Your task to perform on an android device: Go to display settings Image 0: 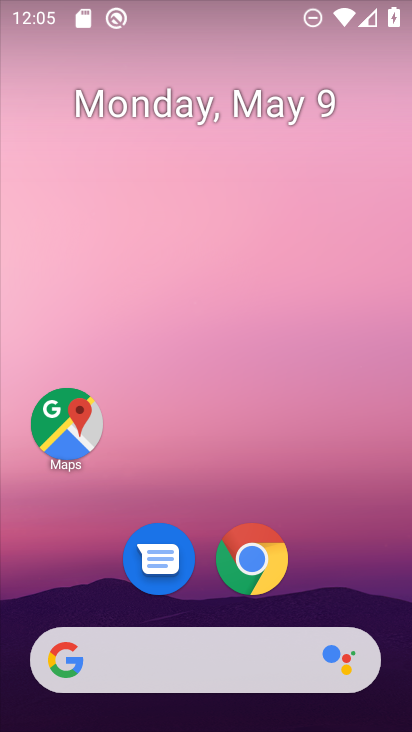
Step 0: drag from (310, 556) to (231, 0)
Your task to perform on an android device: Go to display settings Image 1: 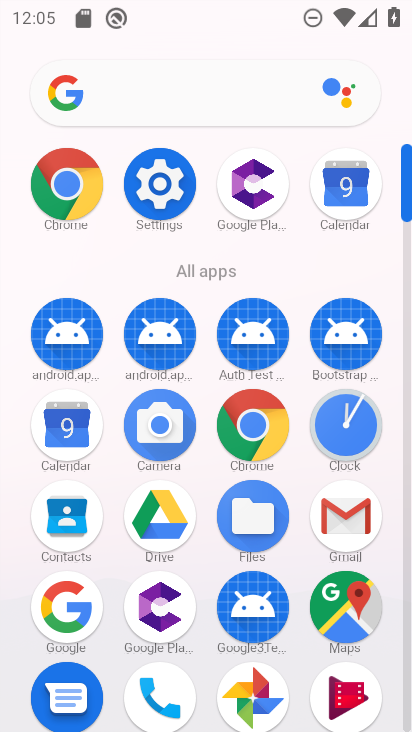
Step 1: click (140, 201)
Your task to perform on an android device: Go to display settings Image 2: 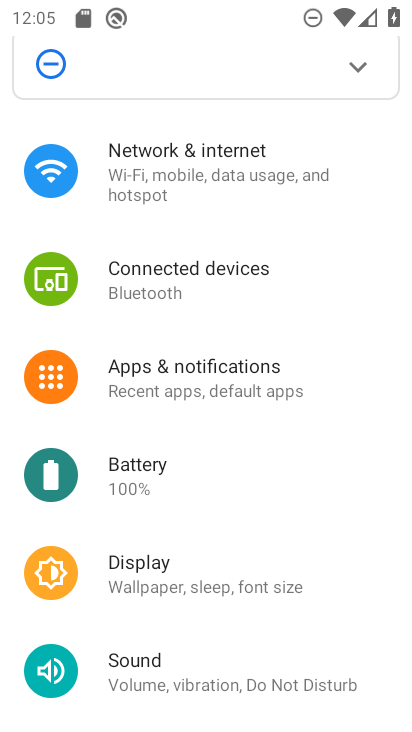
Step 2: click (228, 606)
Your task to perform on an android device: Go to display settings Image 3: 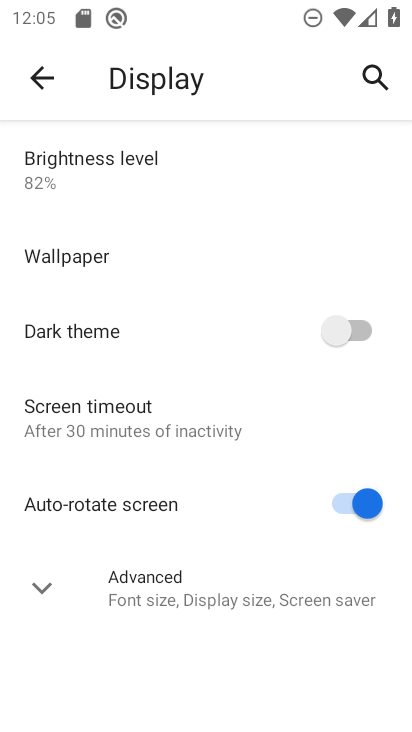
Step 3: task complete